Your task to perform on an android device: Go to calendar. Show me events next week Image 0: 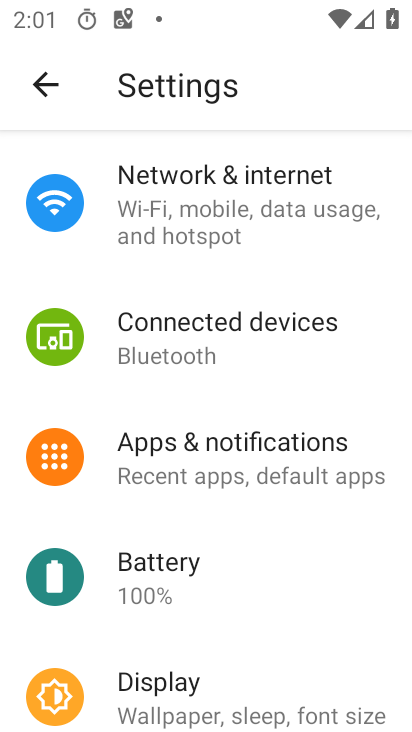
Step 0: press home button
Your task to perform on an android device: Go to calendar. Show me events next week Image 1: 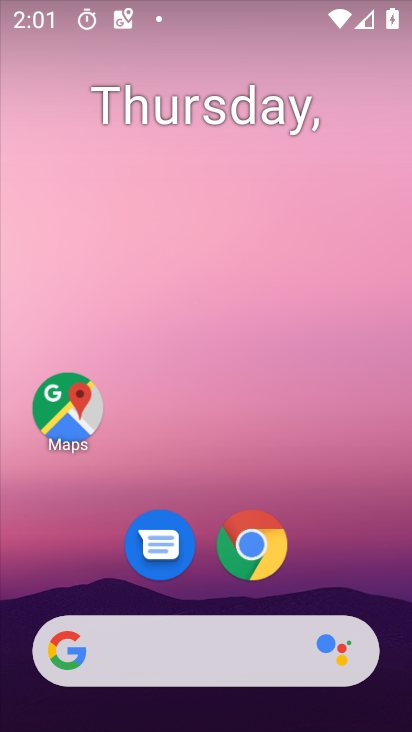
Step 1: drag from (239, 644) to (216, 150)
Your task to perform on an android device: Go to calendar. Show me events next week Image 2: 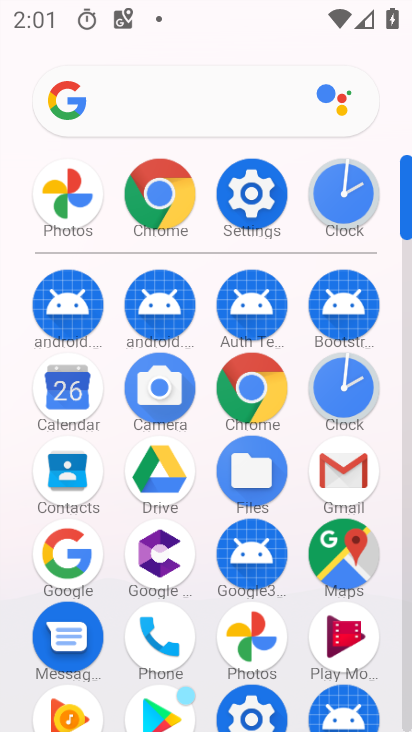
Step 2: click (69, 391)
Your task to perform on an android device: Go to calendar. Show me events next week Image 3: 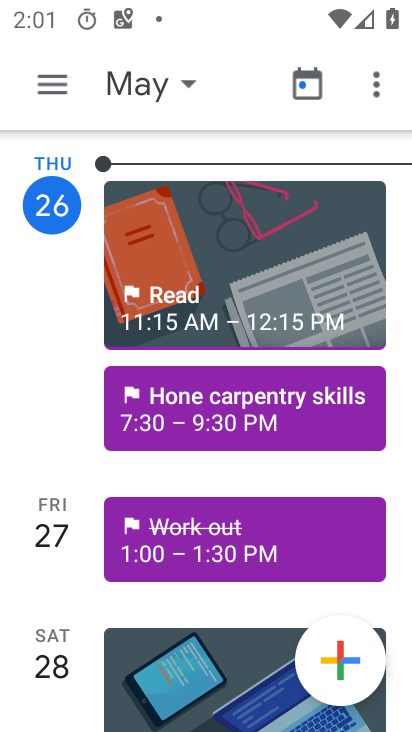
Step 3: click (163, 84)
Your task to perform on an android device: Go to calendar. Show me events next week Image 4: 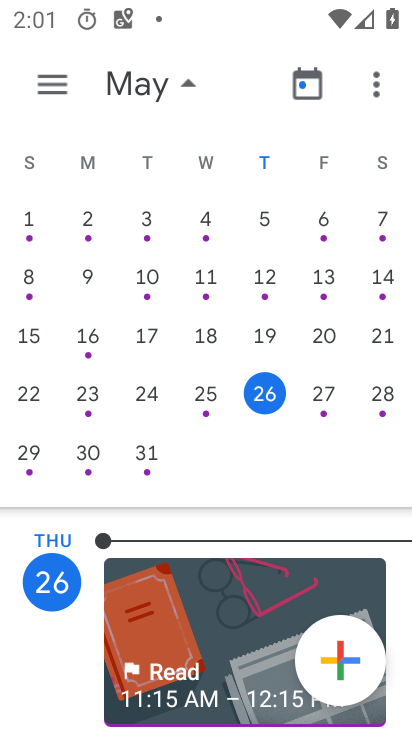
Step 4: click (90, 446)
Your task to perform on an android device: Go to calendar. Show me events next week Image 5: 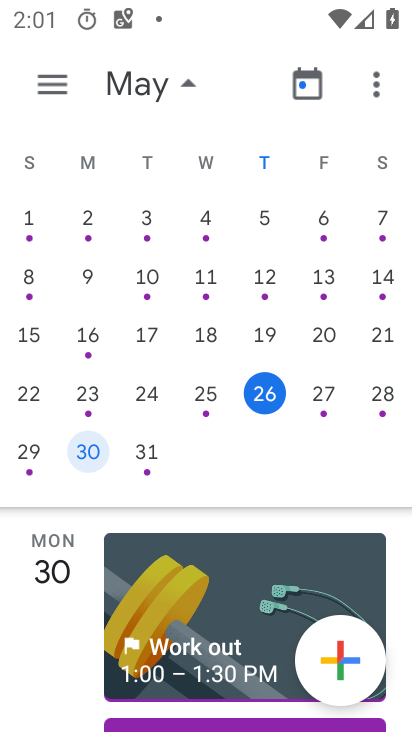
Step 5: click (45, 82)
Your task to perform on an android device: Go to calendar. Show me events next week Image 6: 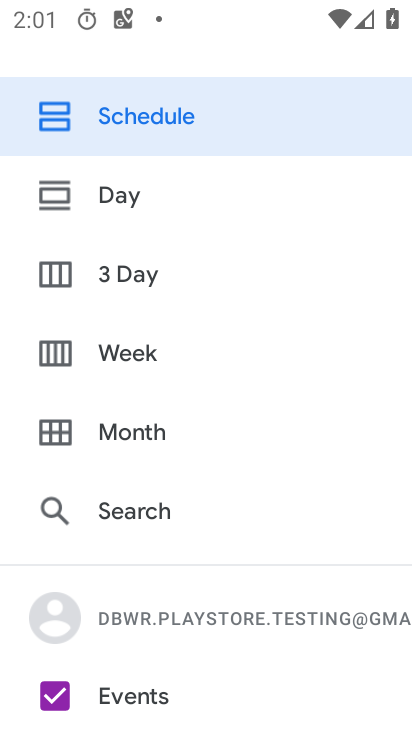
Step 6: click (129, 353)
Your task to perform on an android device: Go to calendar. Show me events next week Image 7: 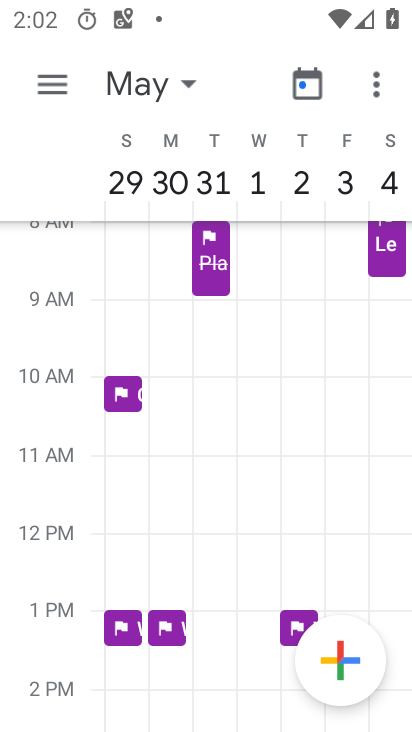
Step 7: task complete